Your task to perform on an android device: open wifi settings Image 0: 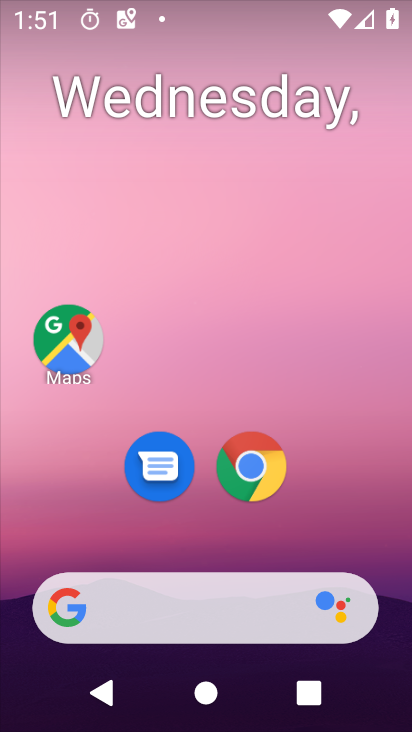
Step 0: drag from (308, 395) to (324, 76)
Your task to perform on an android device: open wifi settings Image 1: 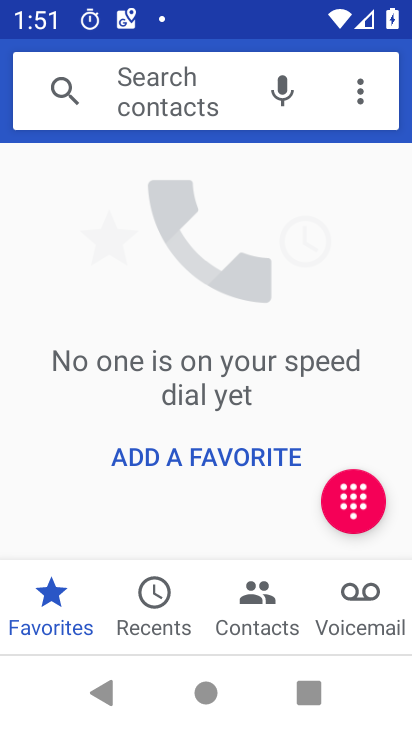
Step 1: press home button
Your task to perform on an android device: open wifi settings Image 2: 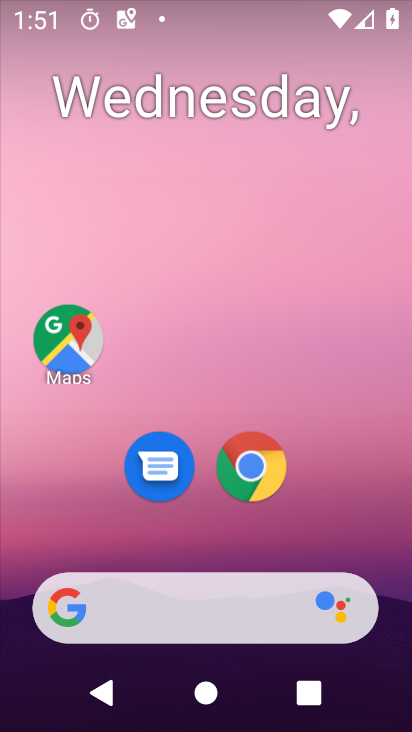
Step 2: drag from (319, 499) to (299, 44)
Your task to perform on an android device: open wifi settings Image 3: 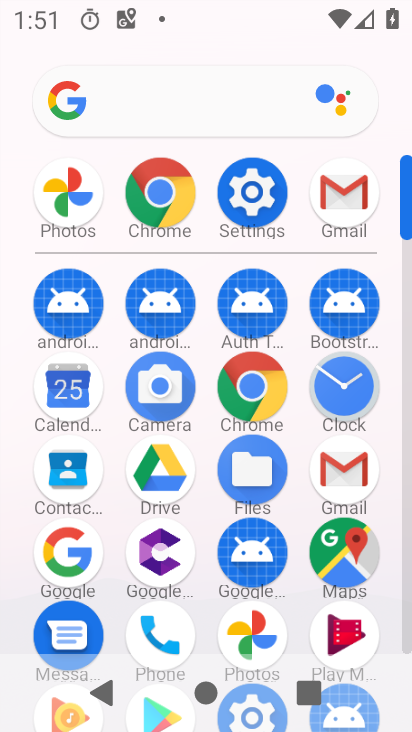
Step 3: click (253, 190)
Your task to perform on an android device: open wifi settings Image 4: 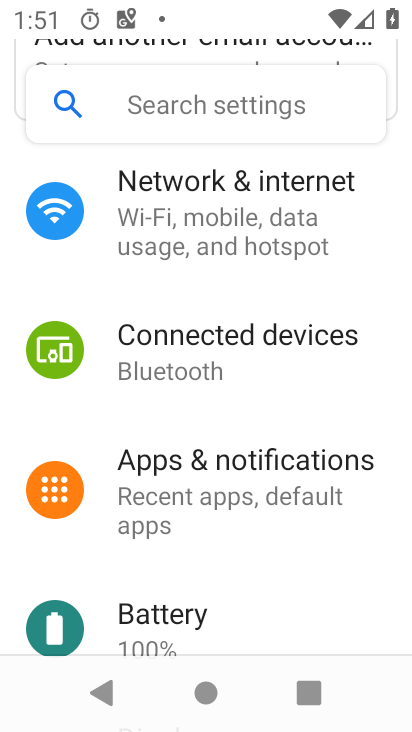
Step 4: click (194, 198)
Your task to perform on an android device: open wifi settings Image 5: 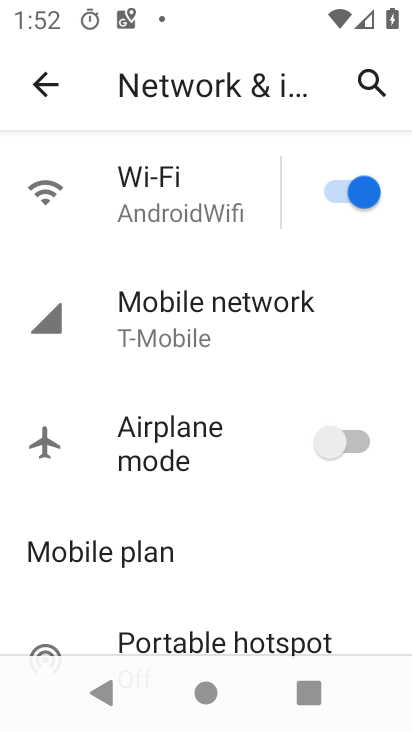
Step 5: task complete